Your task to perform on an android device: Open Chrome and go to settings Image 0: 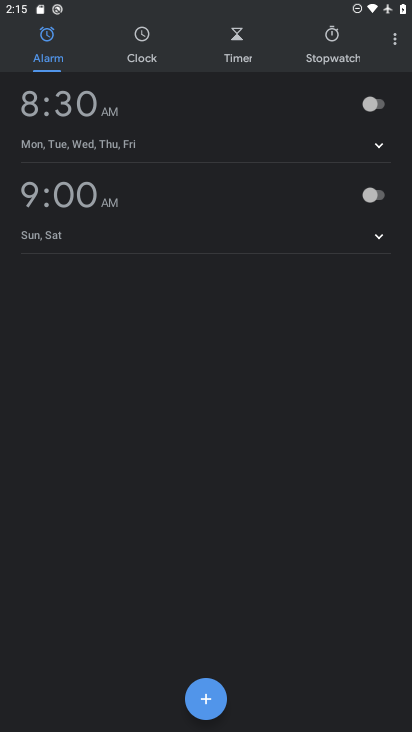
Step 0: press home button
Your task to perform on an android device: Open Chrome and go to settings Image 1: 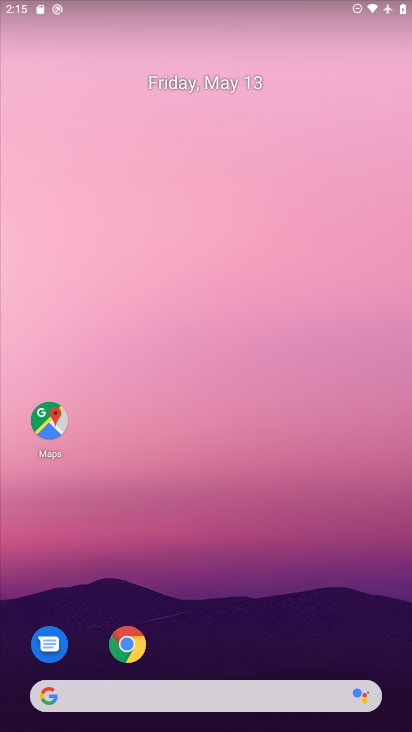
Step 1: drag from (338, 628) to (233, 44)
Your task to perform on an android device: Open Chrome and go to settings Image 2: 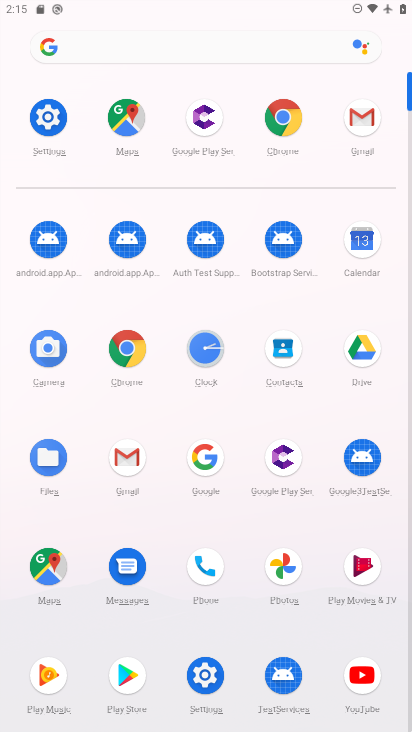
Step 2: click (123, 345)
Your task to perform on an android device: Open Chrome and go to settings Image 3: 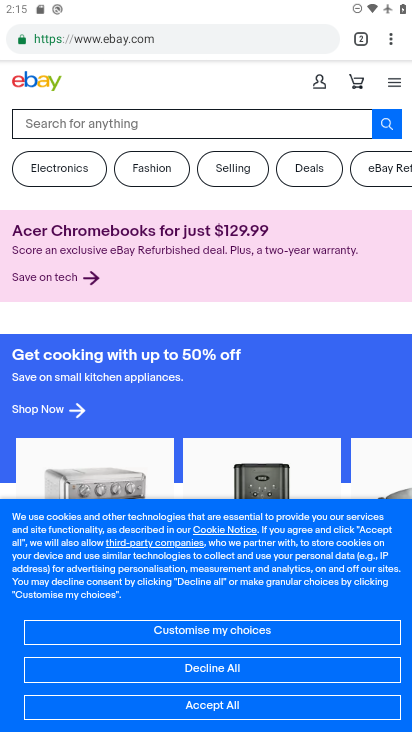
Step 3: press back button
Your task to perform on an android device: Open Chrome and go to settings Image 4: 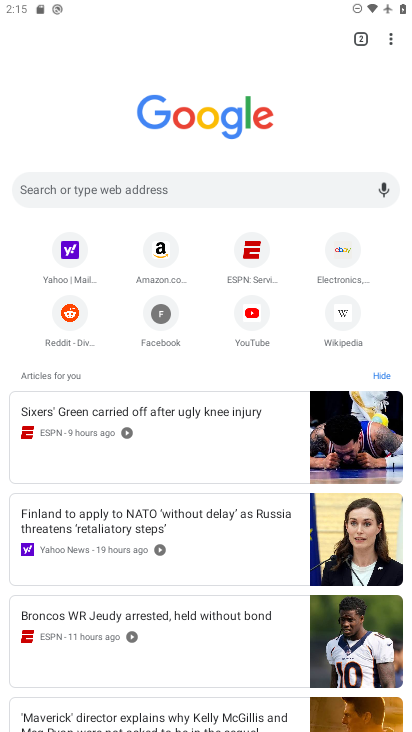
Step 4: click (389, 35)
Your task to perform on an android device: Open Chrome and go to settings Image 5: 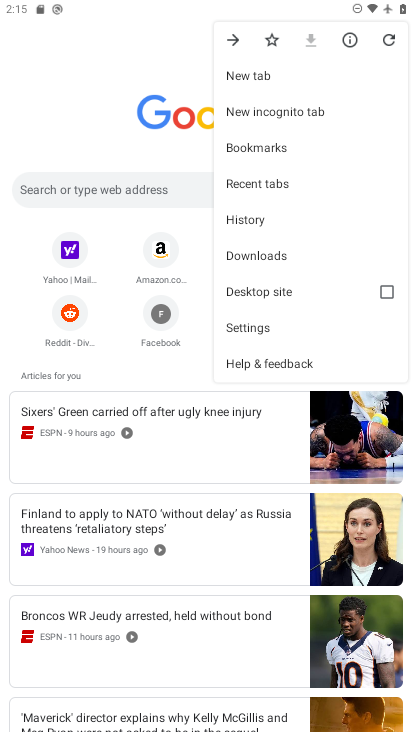
Step 5: click (268, 335)
Your task to perform on an android device: Open Chrome and go to settings Image 6: 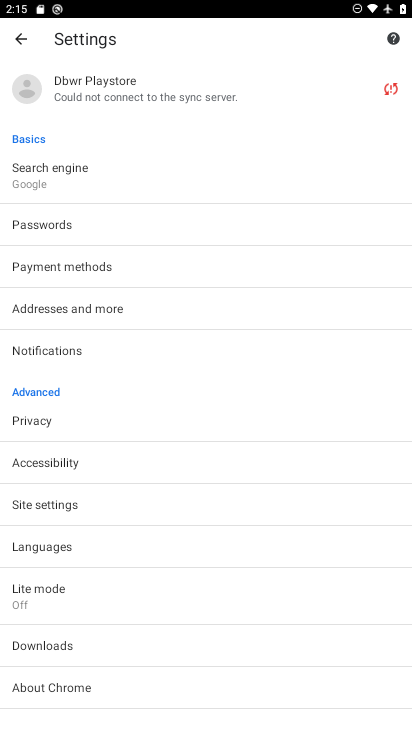
Step 6: task complete